Your task to perform on an android device: turn off sleep mode Image 0: 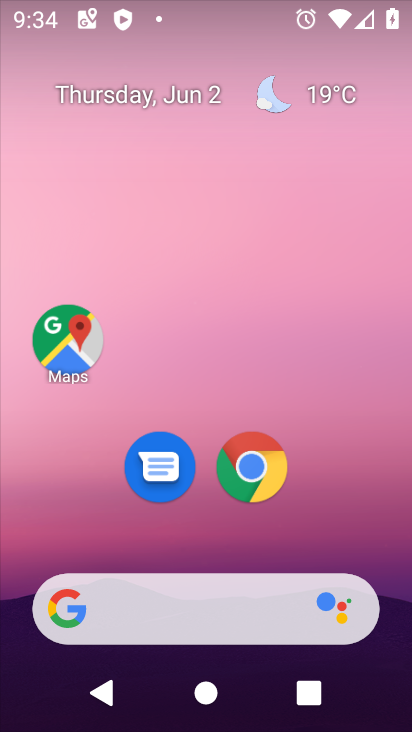
Step 0: drag from (200, 543) to (253, 136)
Your task to perform on an android device: turn off sleep mode Image 1: 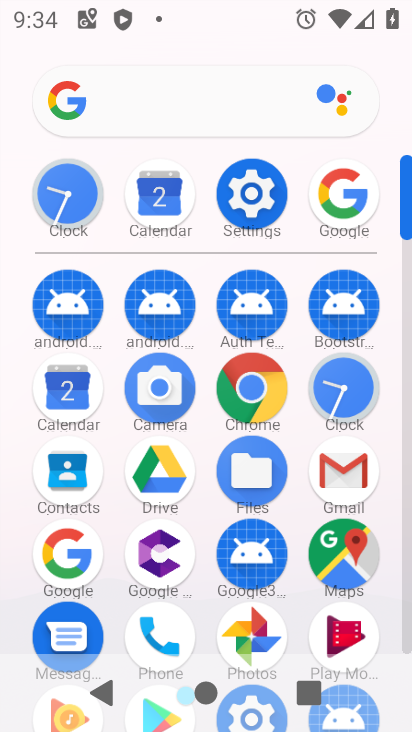
Step 1: click (253, 197)
Your task to perform on an android device: turn off sleep mode Image 2: 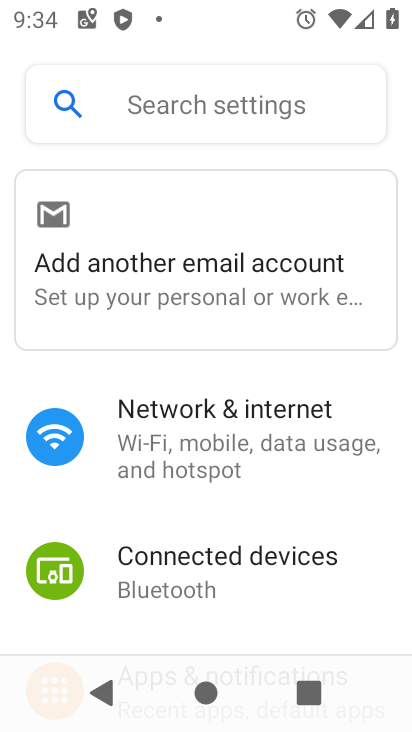
Step 2: task complete